Your task to perform on an android device: Empty the shopping cart on walmart. Add "logitech g pro" to the cart on walmart, then select checkout. Image 0: 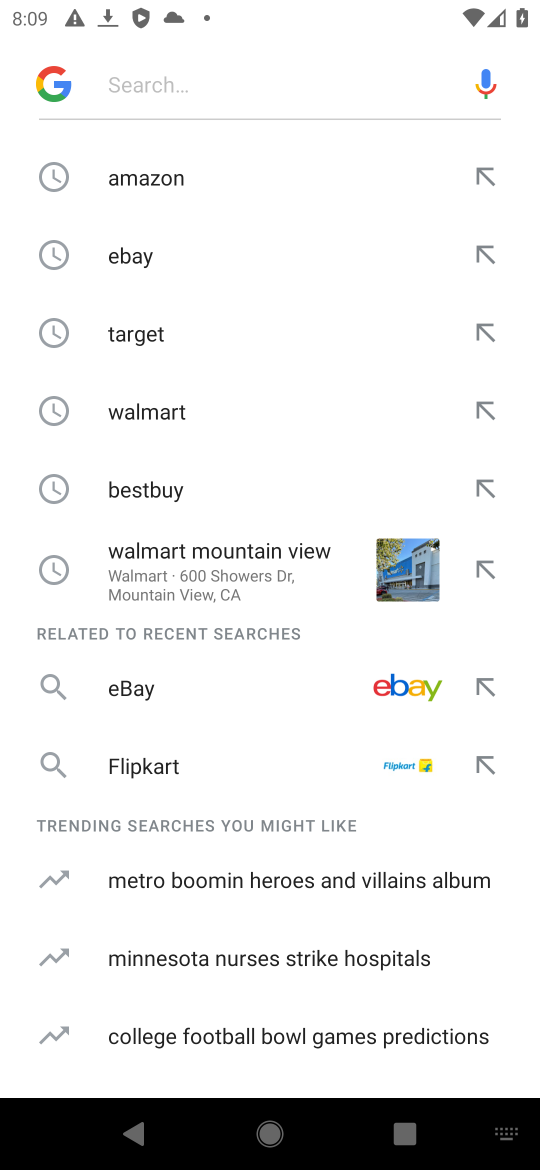
Step 0: press home button
Your task to perform on an android device: Empty the shopping cart on walmart. Add "logitech g pro" to the cart on walmart, then select checkout. Image 1: 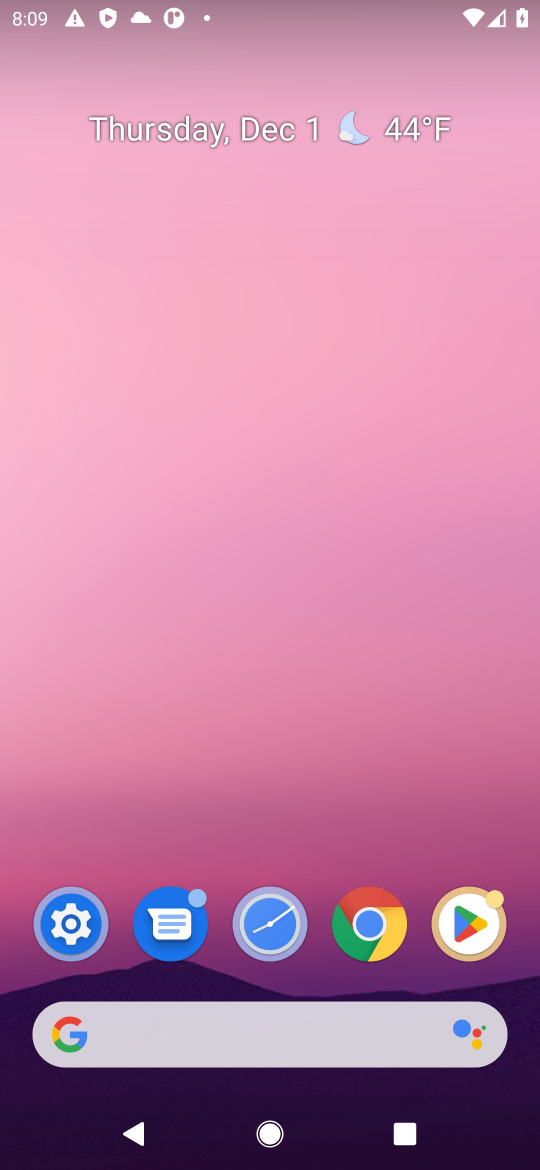
Step 1: click (167, 1048)
Your task to perform on an android device: Empty the shopping cart on walmart. Add "logitech g pro" to the cart on walmart, then select checkout. Image 2: 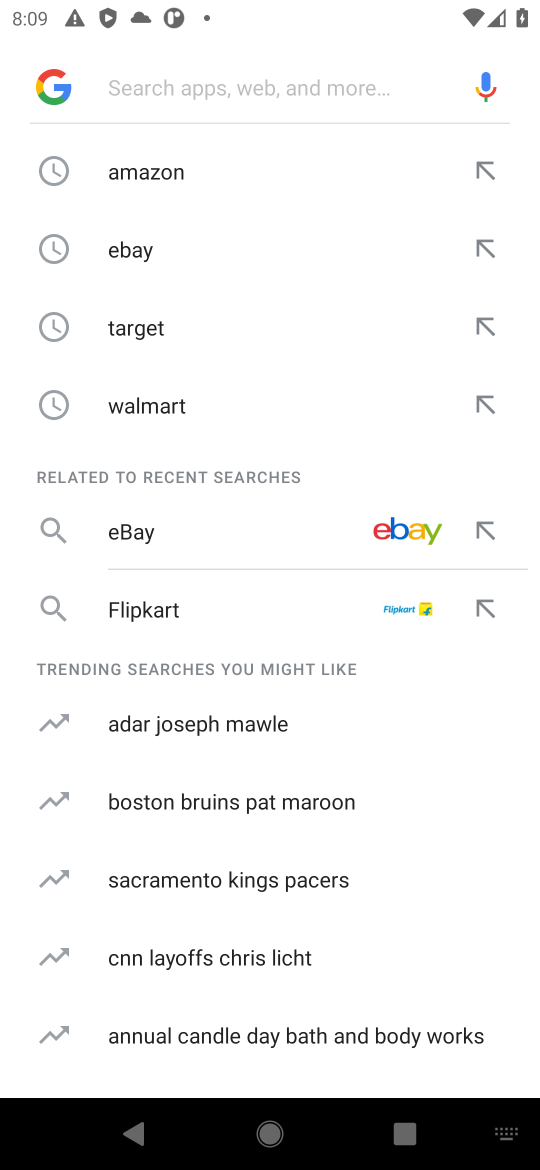
Step 2: click (245, 407)
Your task to perform on an android device: Empty the shopping cart on walmart. Add "logitech g pro" to the cart on walmart, then select checkout. Image 3: 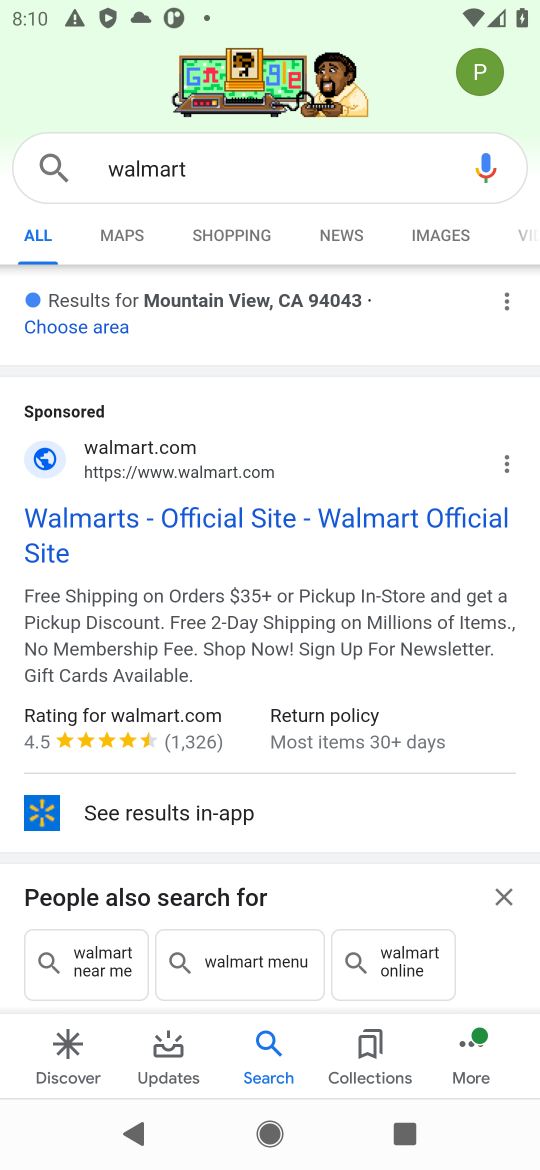
Step 3: click (163, 510)
Your task to perform on an android device: Empty the shopping cart on walmart. Add "logitech g pro" to the cart on walmart, then select checkout. Image 4: 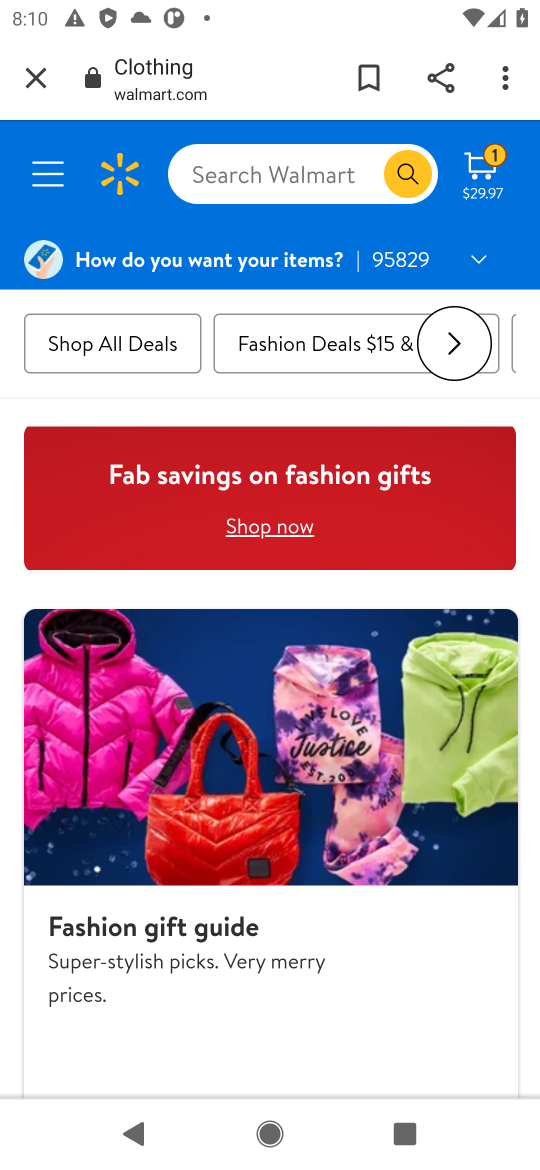
Step 4: click (224, 150)
Your task to perform on an android device: Empty the shopping cart on walmart. Add "logitech g pro" to the cart on walmart, then select checkout. Image 5: 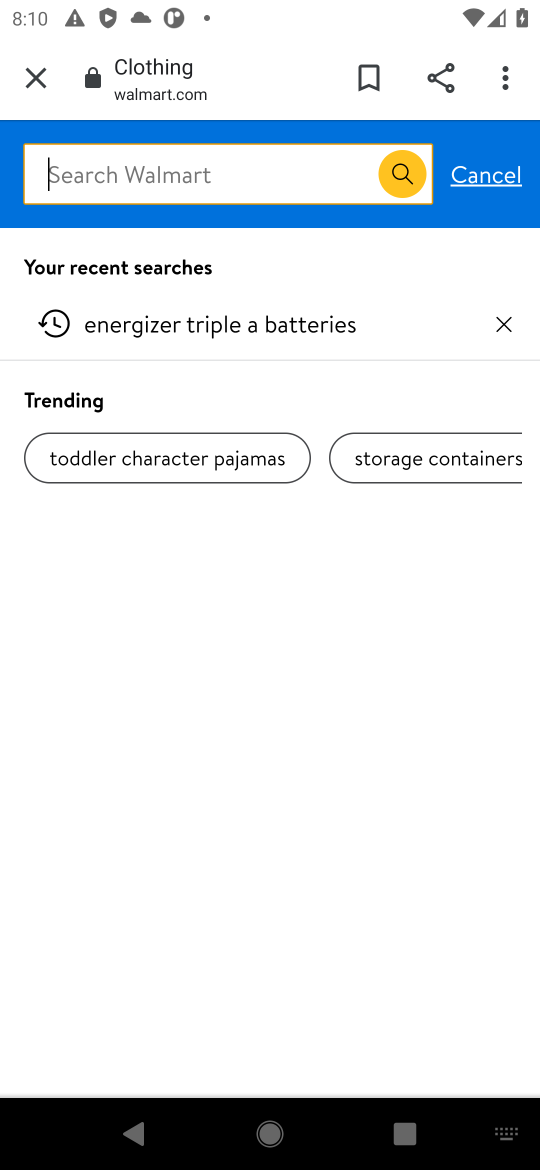
Step 5: type "logitech gpro"
Your task to perform on an android device: Empty the shopping cart on walmart. Add "logitech g pro" to the cart on walmart, then select checkout. Image 6: 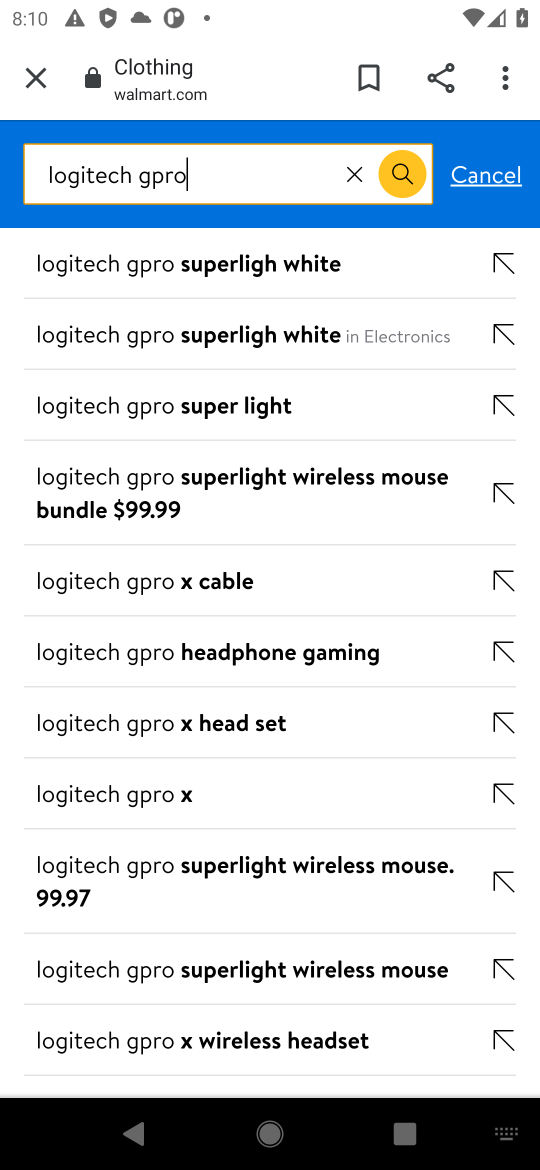
Step 6: click (76, 404)
Your task to perform on an android device: Empty the shopping cart on walmart. Add "logitech g pro" to the cart on walmart, then select checkout. Image 7: 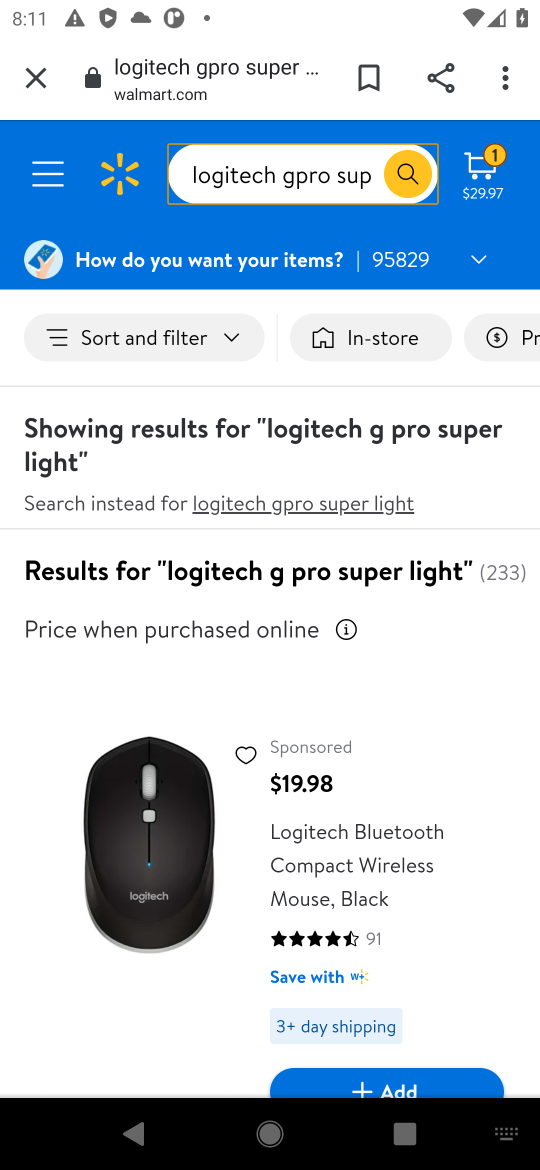
Step 7: click (368, 1081)
Your task to perform on an android device: Empty the shopping cart on walmart. Add "logitech g pro" to the cart on walmart, then select checkout. Image 8: 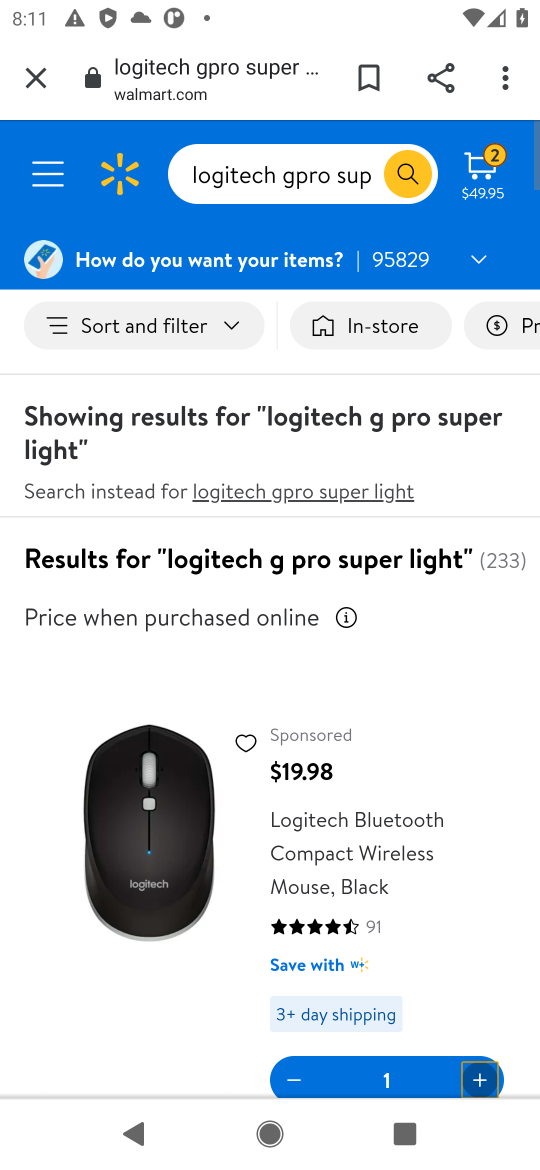
Step 8: task complete